Your task to perform on an android device: clear history in the chrome app Image 0: 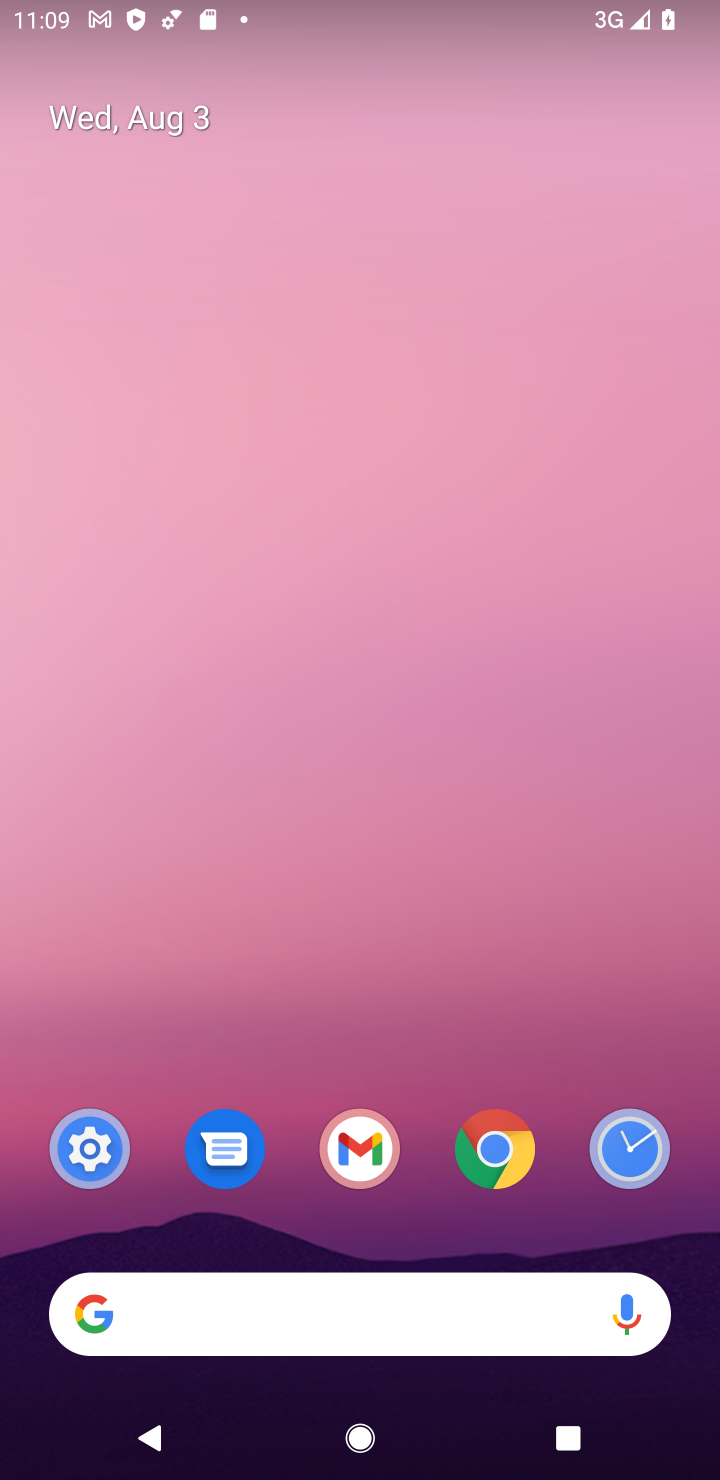
Step 0: click (496, 1141)
Your task to perform on an android device: clear history in the chrome app Image 1: 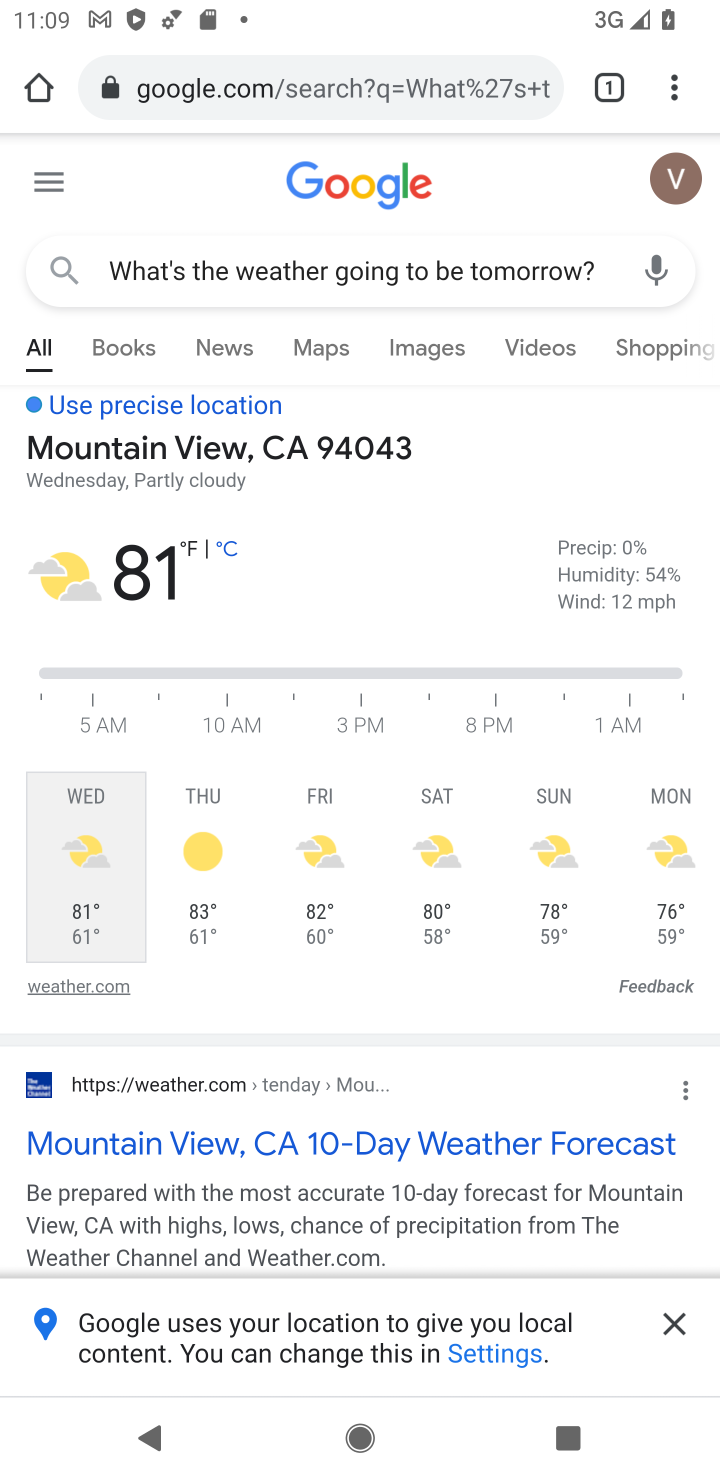
Step 1: click (675, 88)
Your task to perform on an android device: clear history in the chrome app Image 2: 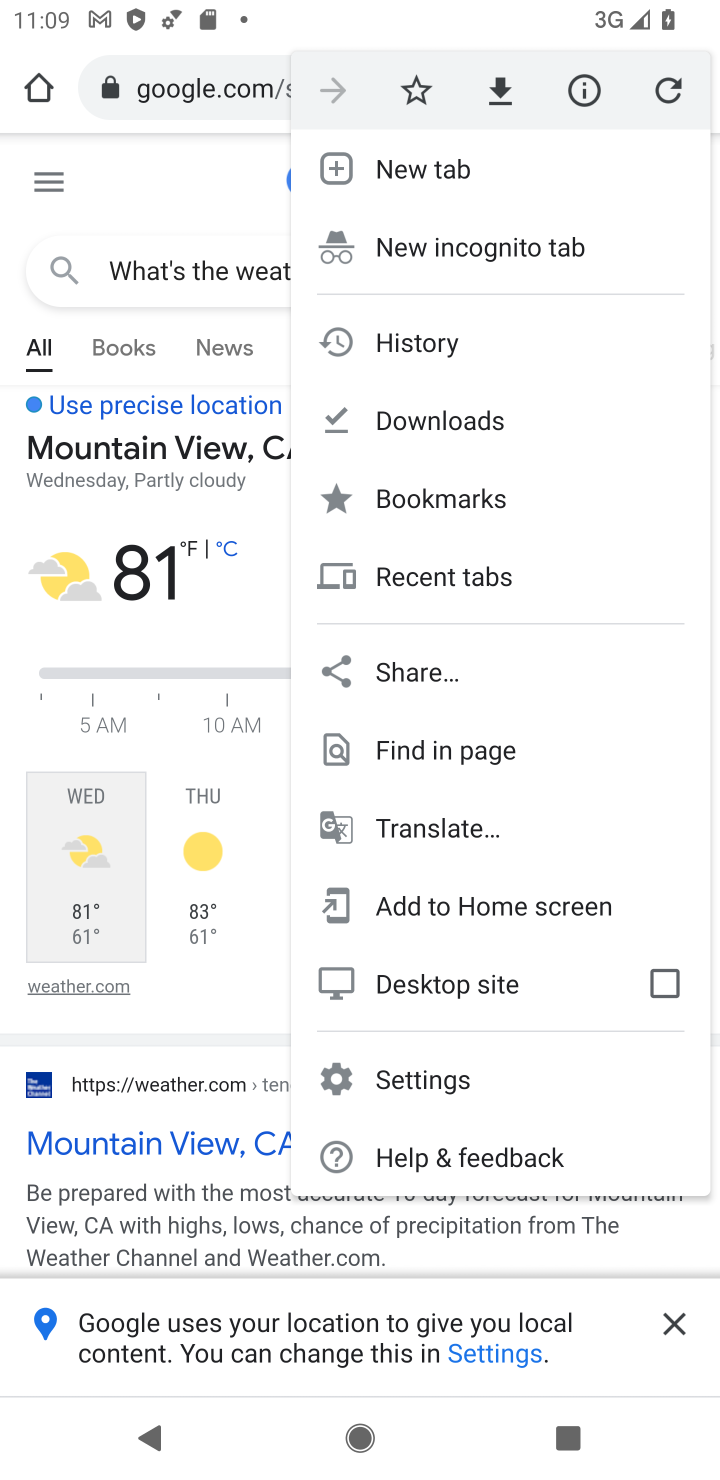
Step 2: click (433, 347)
Your task to perform on an android device: clear history in the chrome app Image 3: 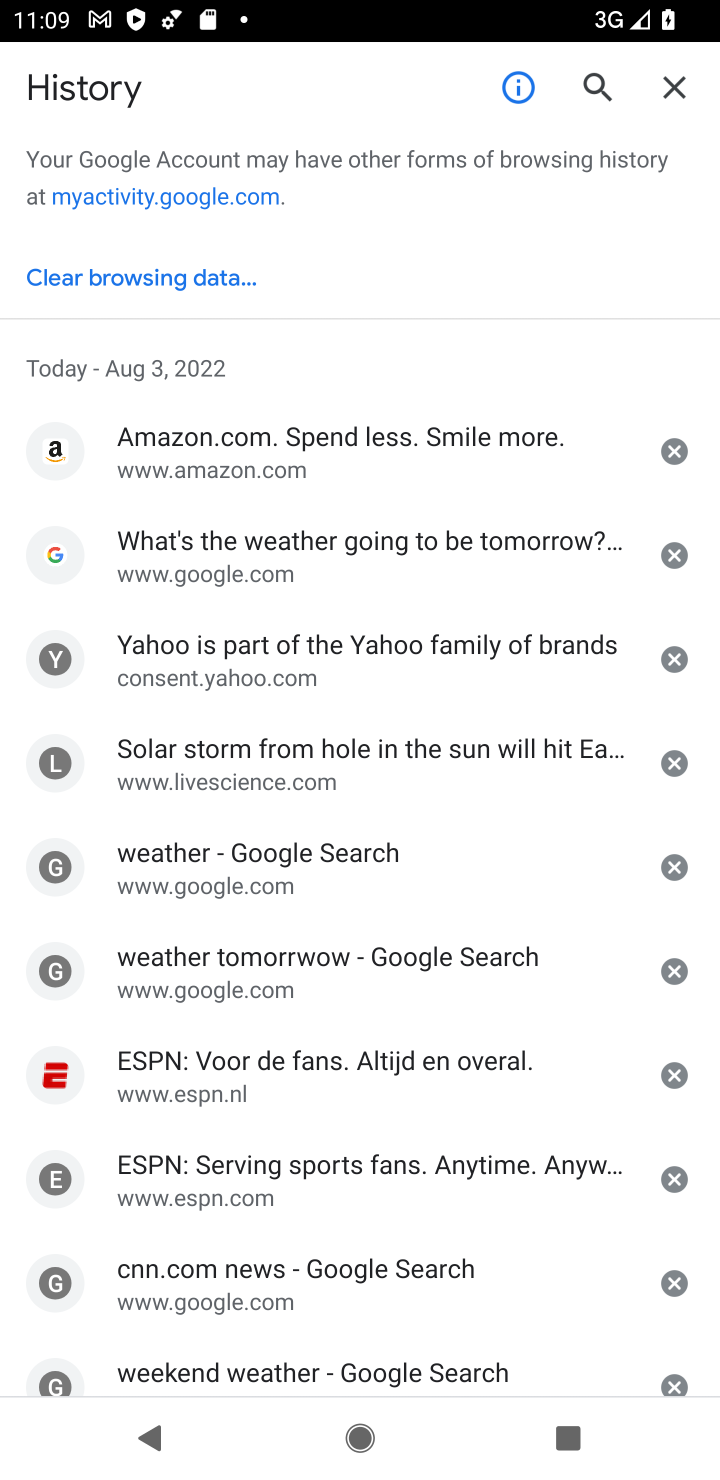
Step 3: click (224, 278)
Your task to perform on an android device: clear history in the chrome app Image 4: 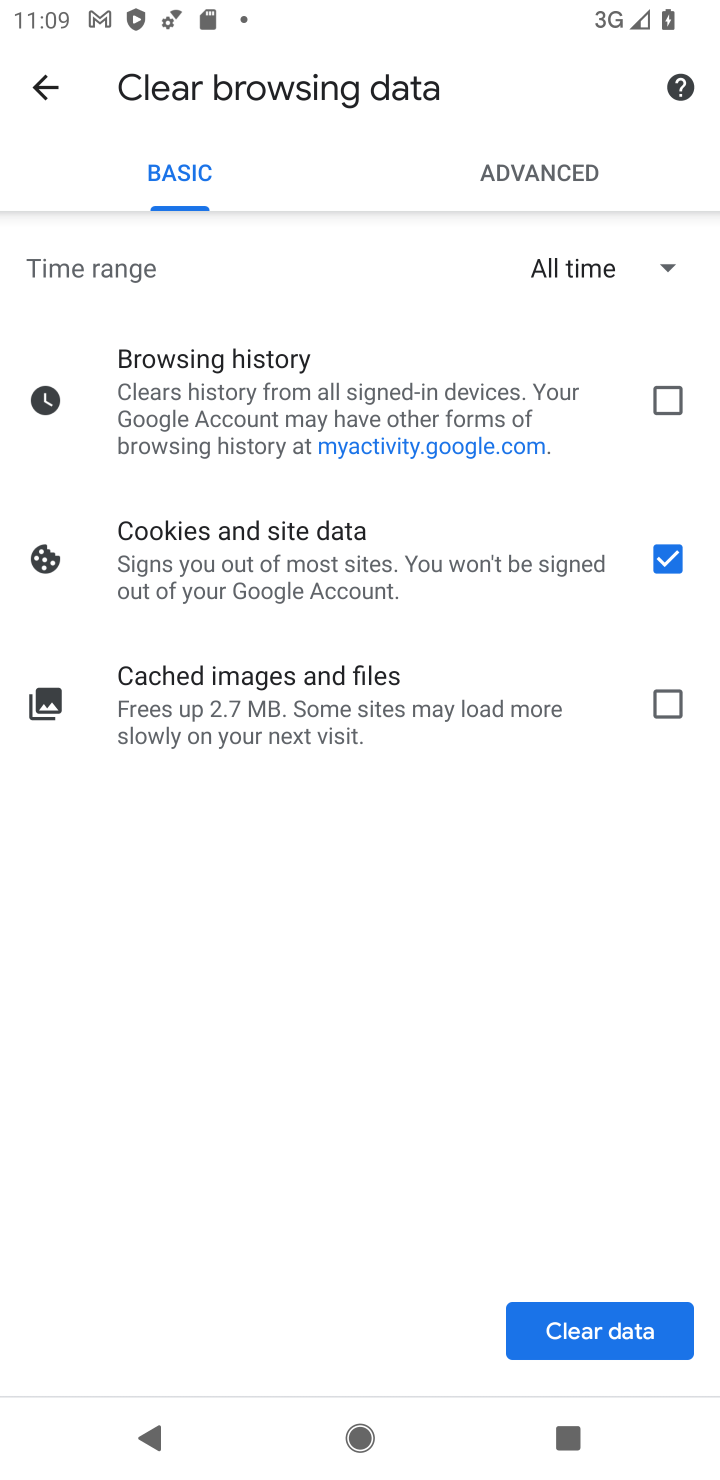
Step 4: click (675, 398)
Your task to perform on an android device: clear history in the chrome app Image 5: 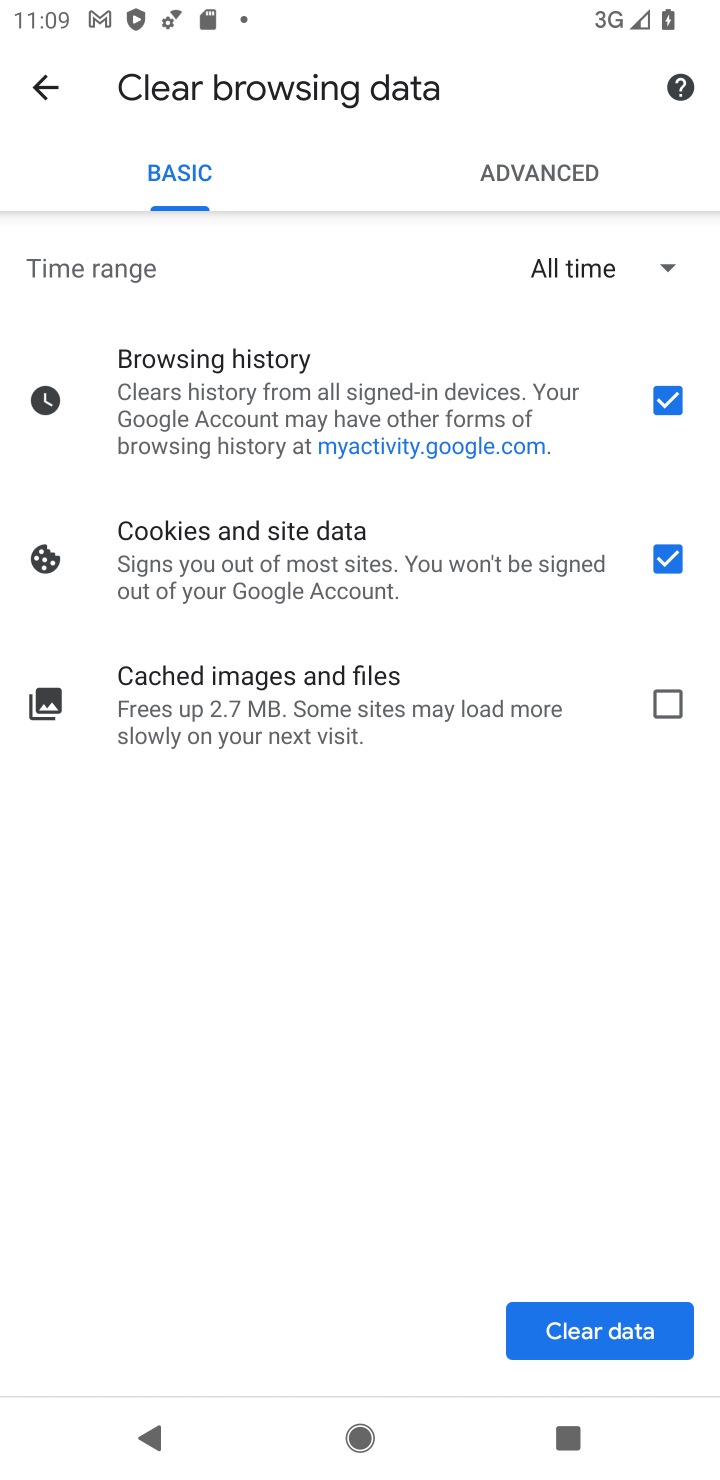
Step 5: click (675, 540)
Your task to perform on an android device: clear history in the chrome app Image 6: 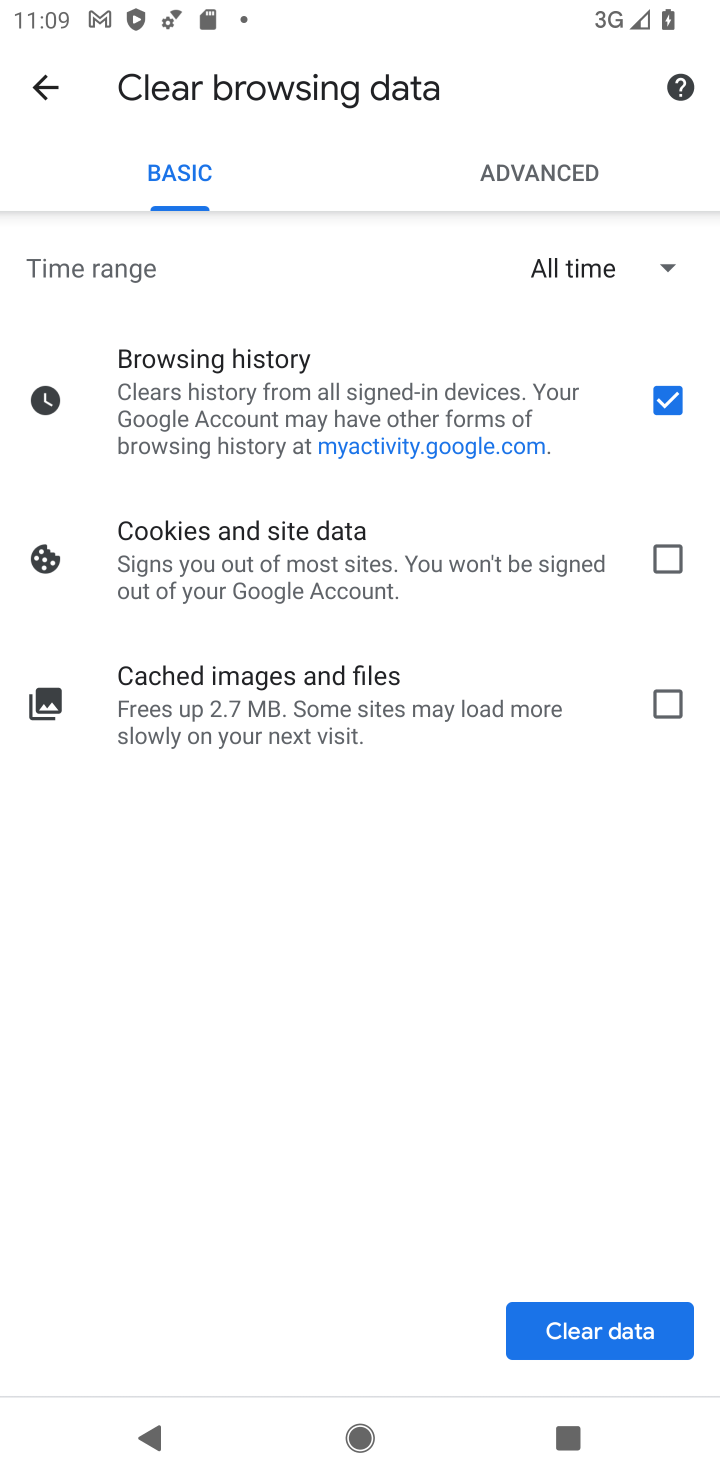
Step 6: click (630, 1341)
Your task to perform on an android device: clear history in the chrome app Image 7: 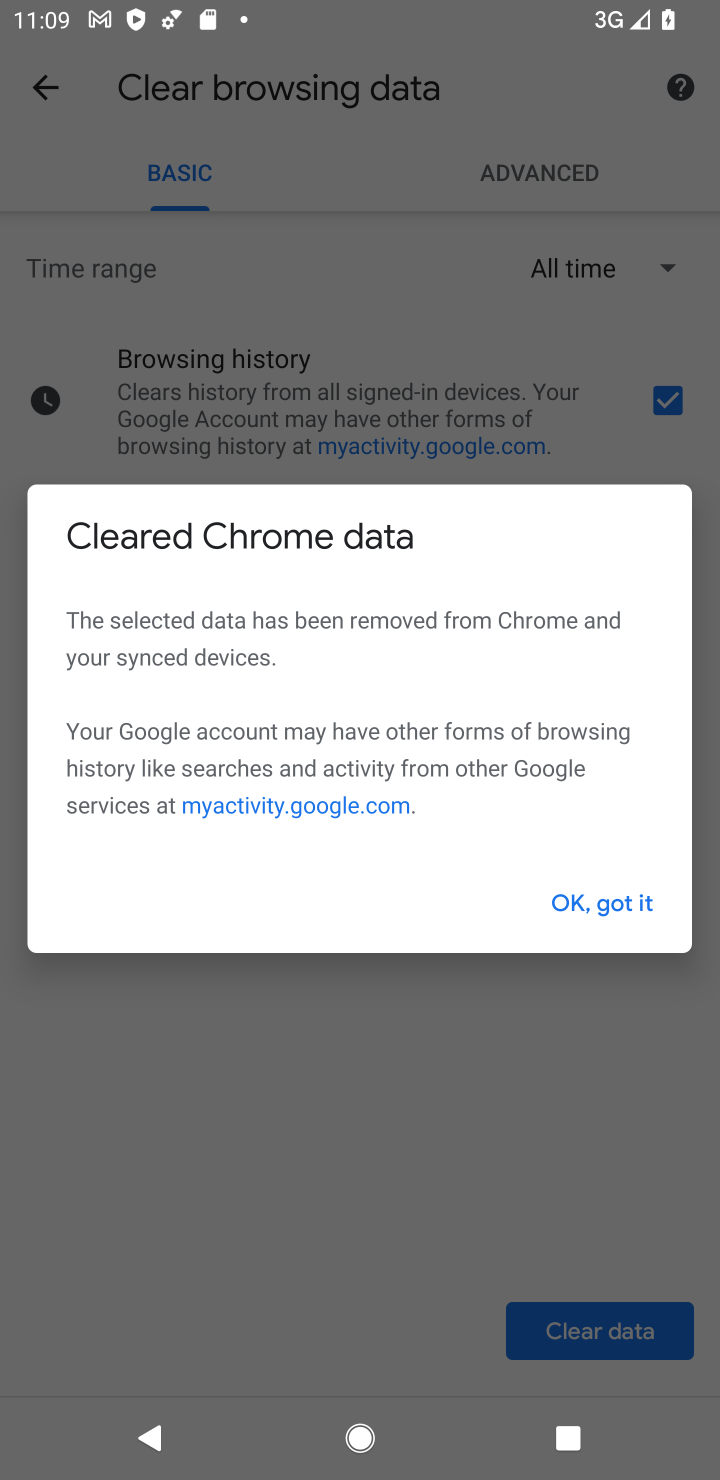
Step 7: click (584, 896)
Your task to perform on an android device: clear history in the chrome app Image 8: 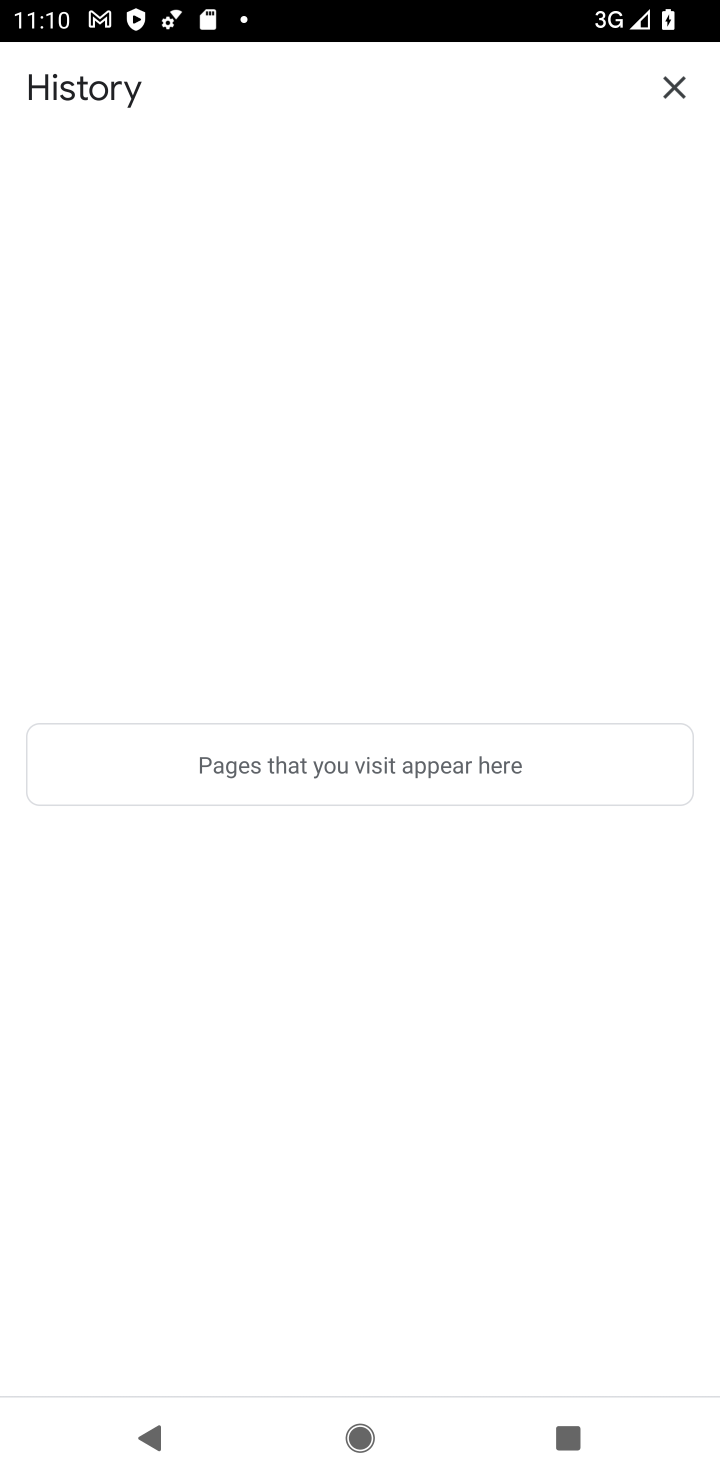
Step 8: task complete